Your task to perform on an android device: Go to internet settings Image 0: 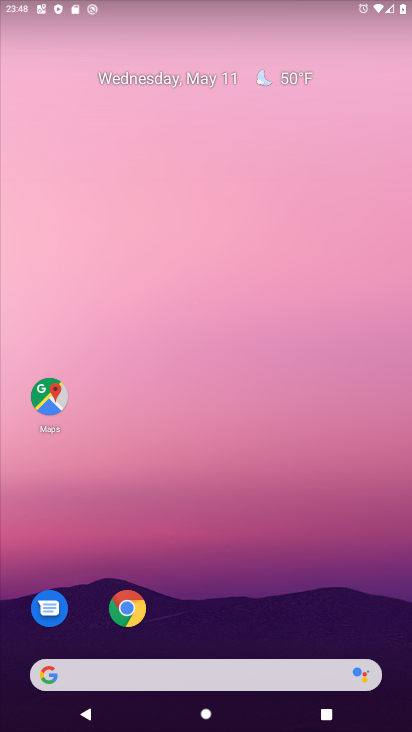
Step 0: drag from (230, 588) to (164, 95)
Your task to perform on an android device: Go to internet settings Image 1: 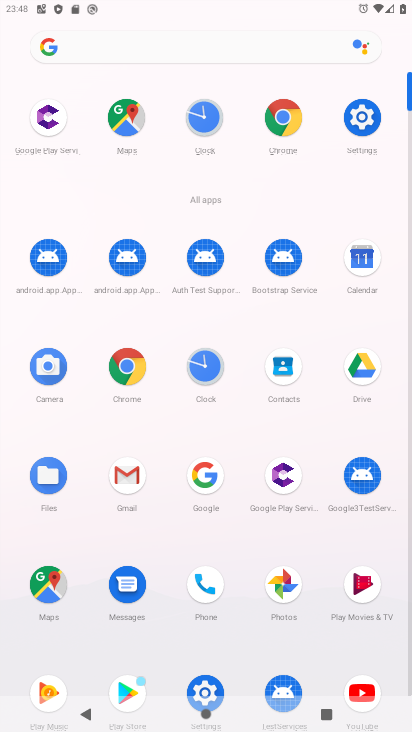
Step 1: click (364, 117)
Your task to perform on an android device: Go to internet settings Image 2: 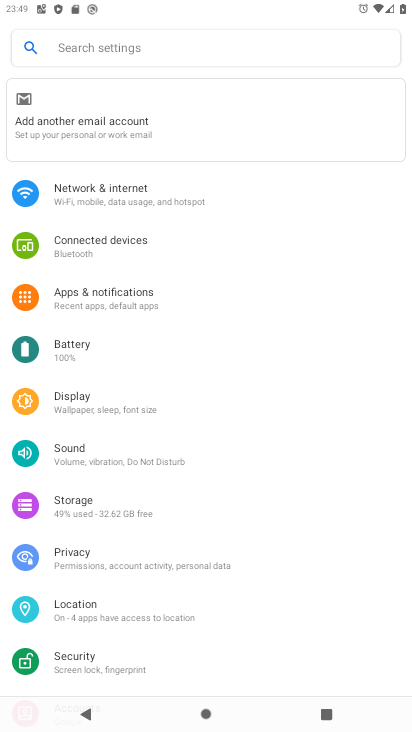
Step 2: click (86, 193)
Your task to perform on an android device: Go to internet settings Image 3: 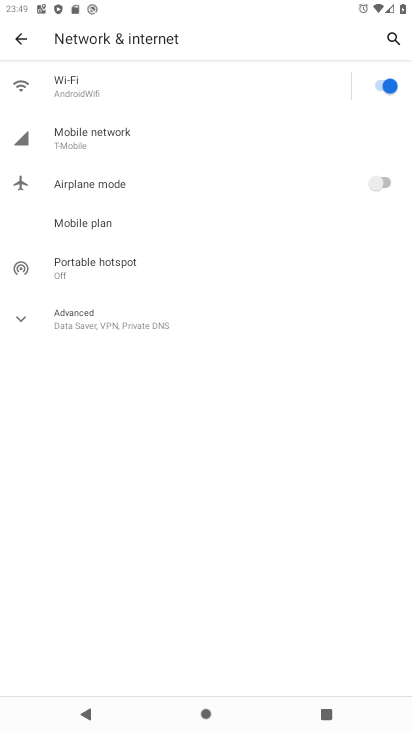
Step 3: task complete